Your task to perform on an android device: Open Maps and search for coffee Image 0: 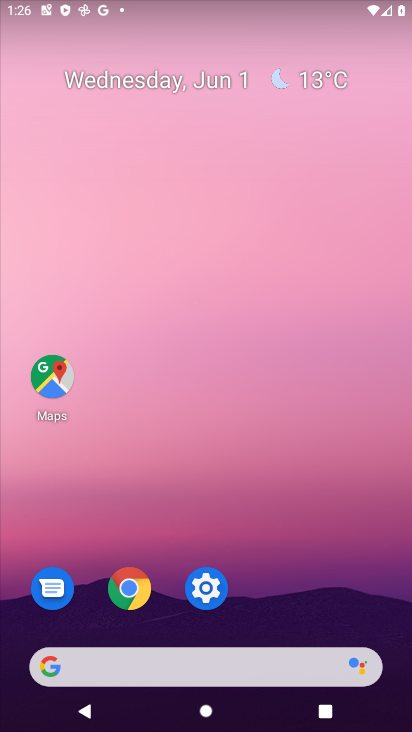
Step 0: drag from (262, 682) to (275, 300)
Your task to perform on an android device: Open Maps and search for coffee Image 1: 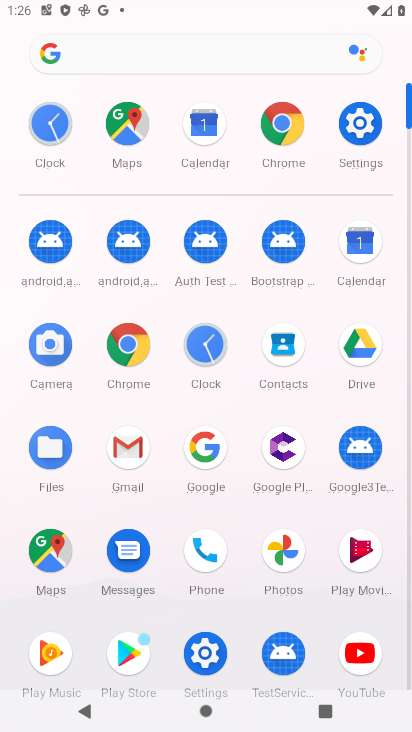
Step 1: click (120, 119)
Your task to perform on an android device: Open Maps and search for coffee Image 2: 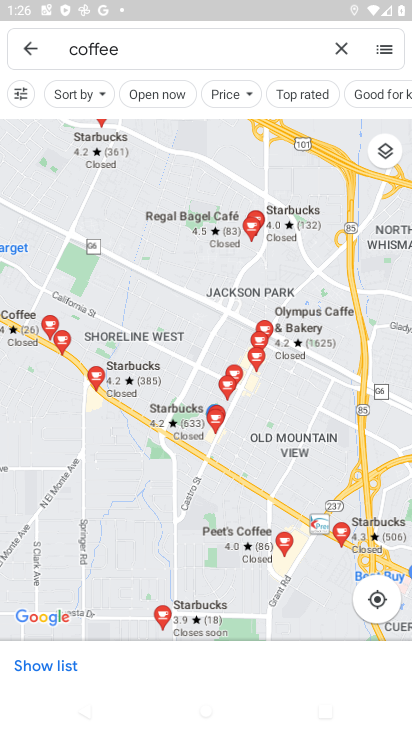
Step 2: click (247, 54)
Your task to perform on an android device: Open Maps and search for coffee Image 3: 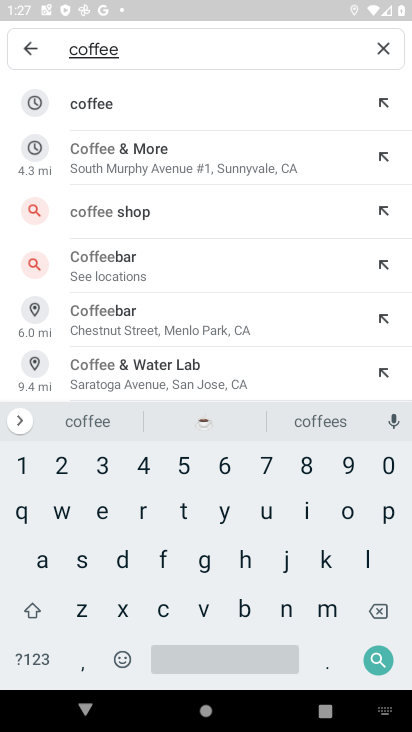
Step 3: click (378, 657)
Your task to perform on an android device: Open Maps and search for coffee Image 4: 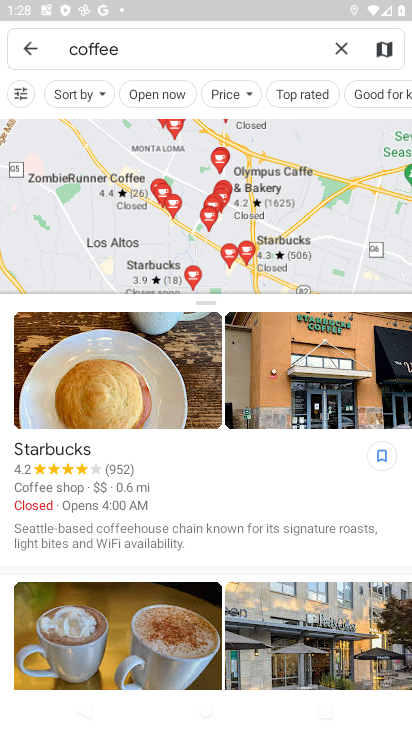
Step 4: task complete